Your task to perform on an android device: check android version Image 0: 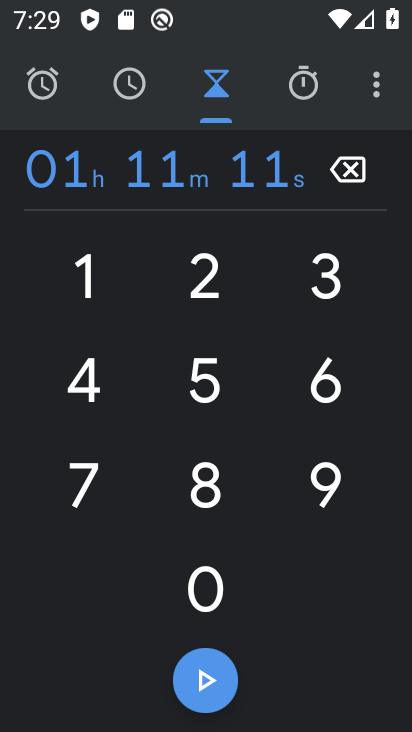
Step 0: press home button
Your task to perform on an android device: check android version Image 1: 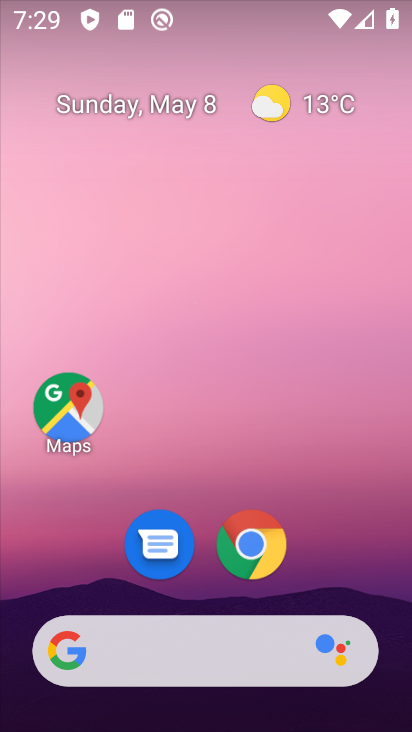
Step 1: drag from (338, 561) to (333, 20)
Your task to perform on an android device: check android version Image 2: 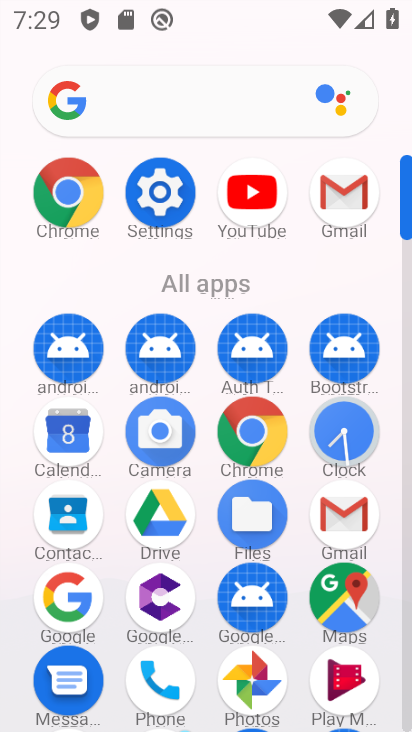
Step 2: click (163, 196)
Your task to perform on an android device: check android version Image 3: 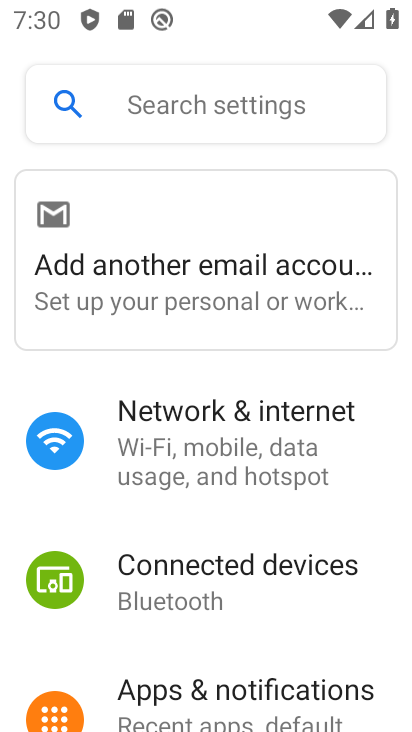
Step 3: drag from (256, 638) to (232, 160)
Your task to perform on an android device: check android version Image 4: 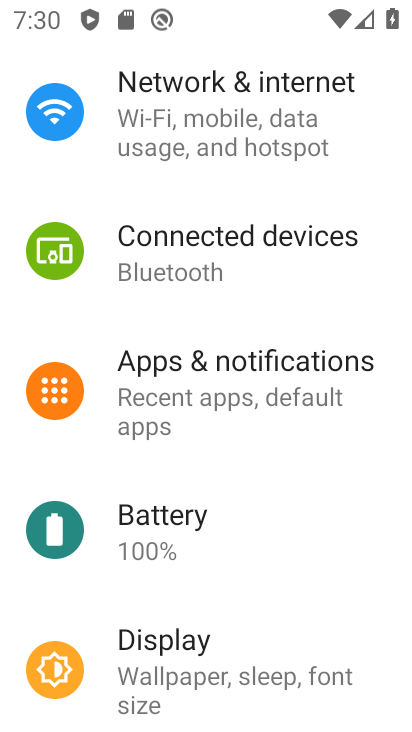
Step 4: drag from (237, 578) to (209, 164)
Your task to perform on an android device: check android version Image 5: 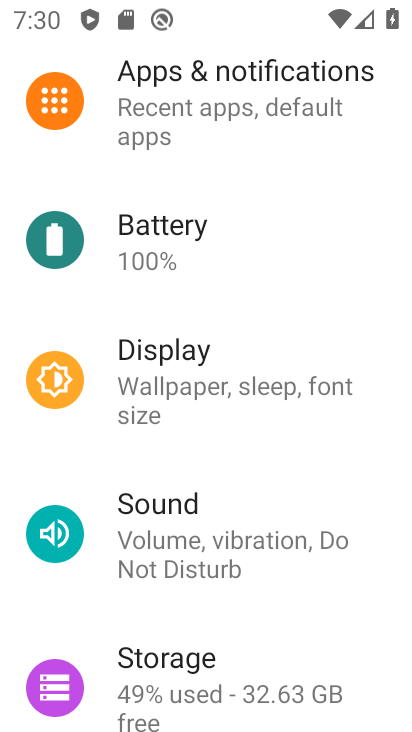
Step 5: drag from (230, 629) to (173, 240)
Your task to perform on an android device: check android version Image 6: 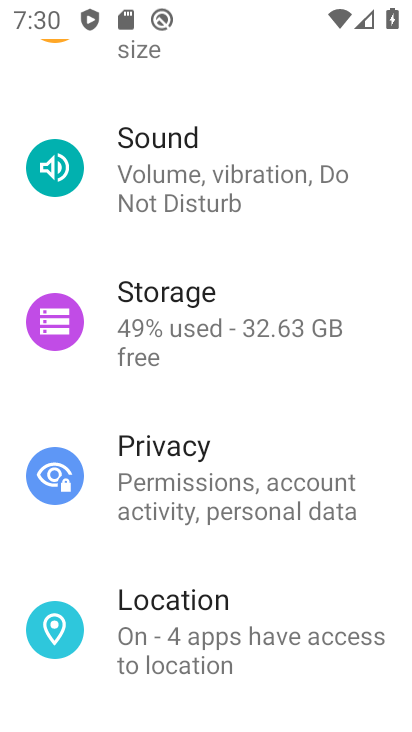
Step 6: drag from (227, 565) to (184, 86)
Your task to perform on an android device: check android version Image 7: 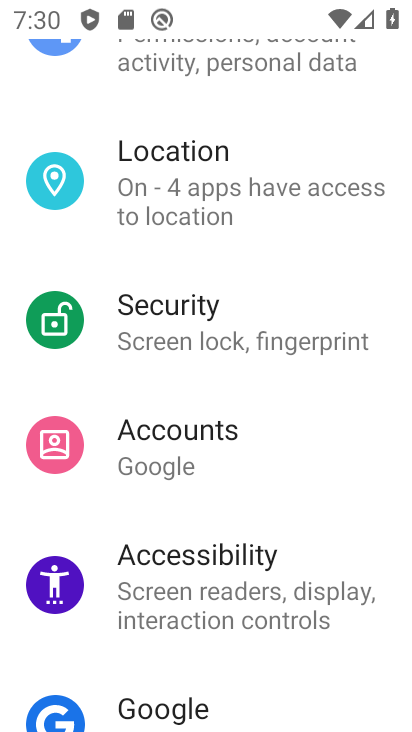
Step 7: drag from (263, 676) to (194, 275)
Your task to perform on an android device: check android version Image 8: 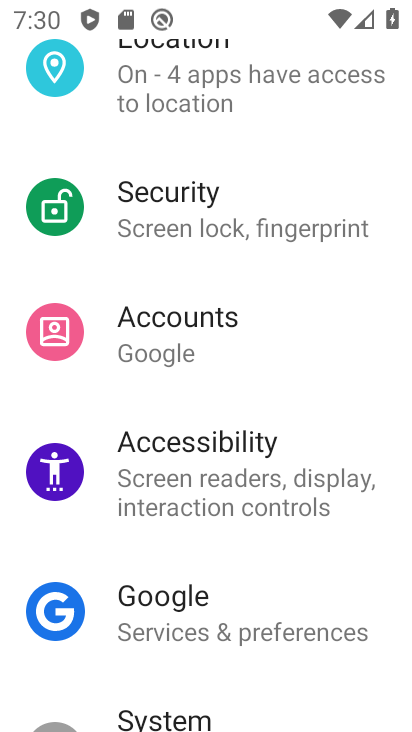
Step 8: drag from (255, 666) to (209, 289)
Your task to perform on an android device: check android version Image 9: 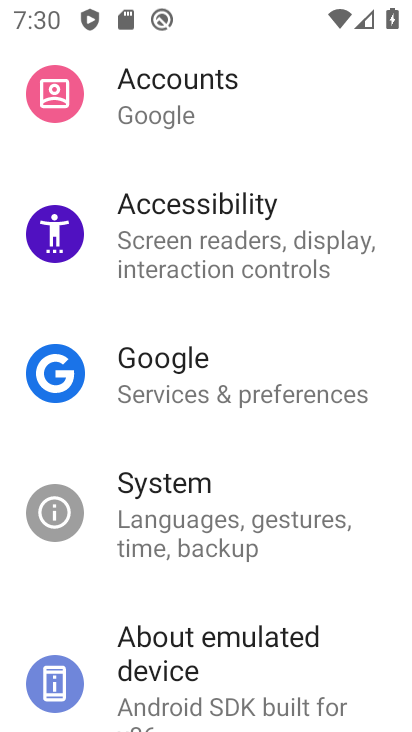
Step 9: drag from (215, 577) to (166, 281)
Your task to perform on an android device: check android version Image 10: 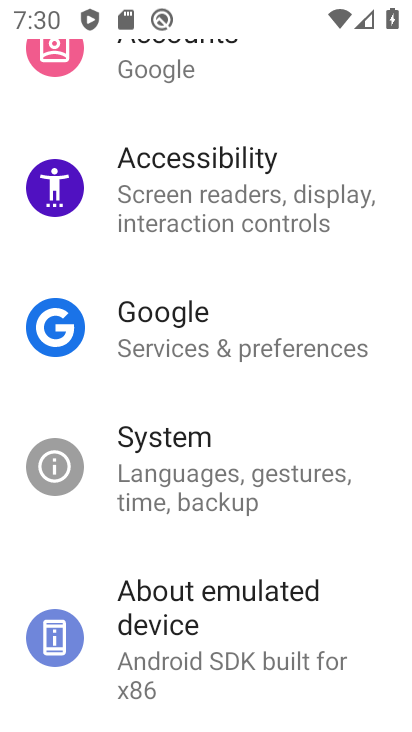
Step 10: click (138, 595)
Your task to perform on an android device: check android version Image 11: 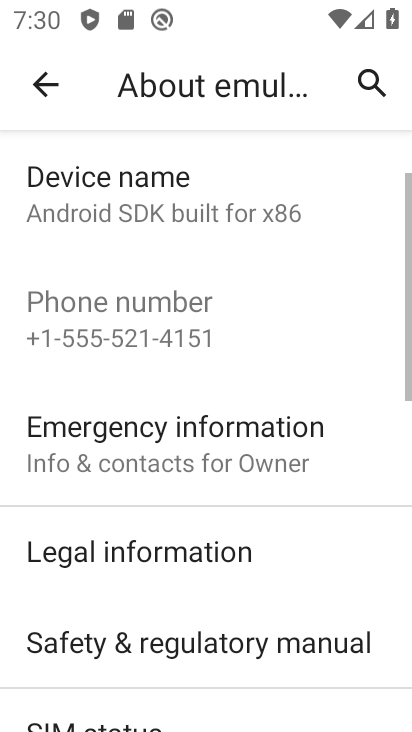
Step 11: drag from (299, 554) to (268, 345)
Your task to perform on an android device: check android version Image 12: 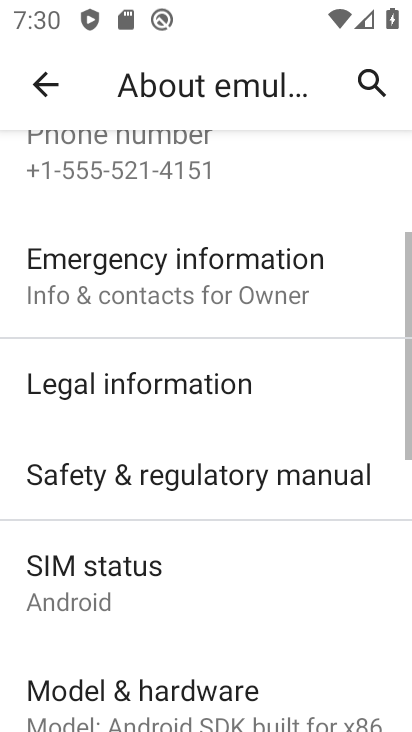
Step 12: drag from (216, 606) to (195, 449)
Your task to perform on an android device: check android version Image 13: 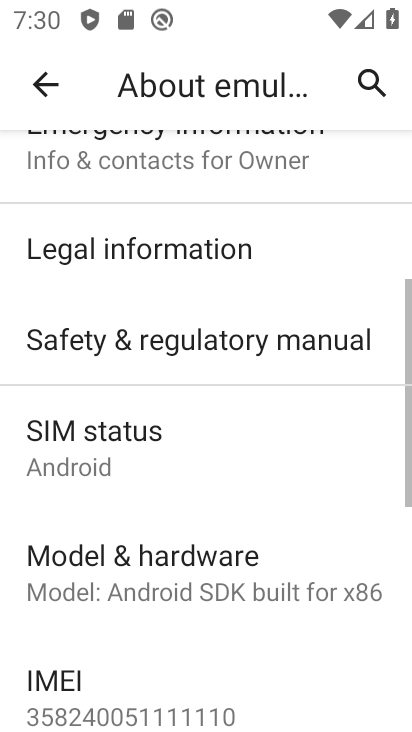
Step 13: drag from (161, 616) to (124, 458)
Your task to perform on an android device: check android version Image 14: 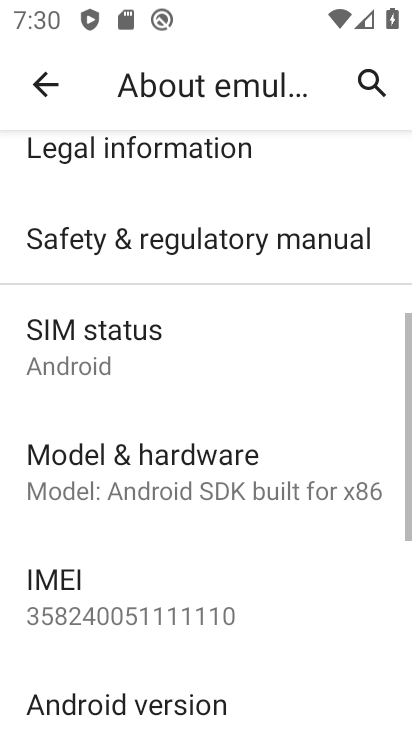
Step 14: drag from (187, 645) to (150, 474)
Your task to perform on an android device: check android version Image 15: 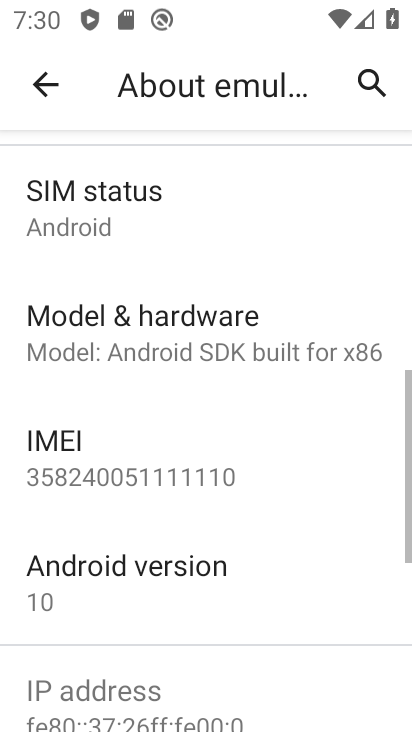
Step 15: click (122, 566)
Your task to perform on an android device: check android version Image 16: 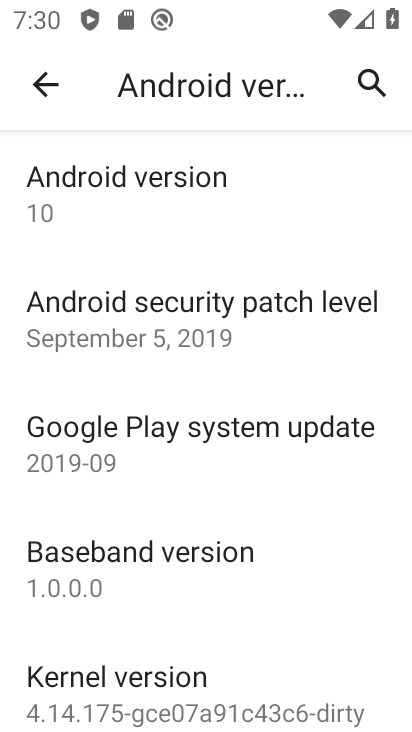
Step 16: task complete